Your task to perform on an android device: Search for sushi restaurants on Maps Image 0: 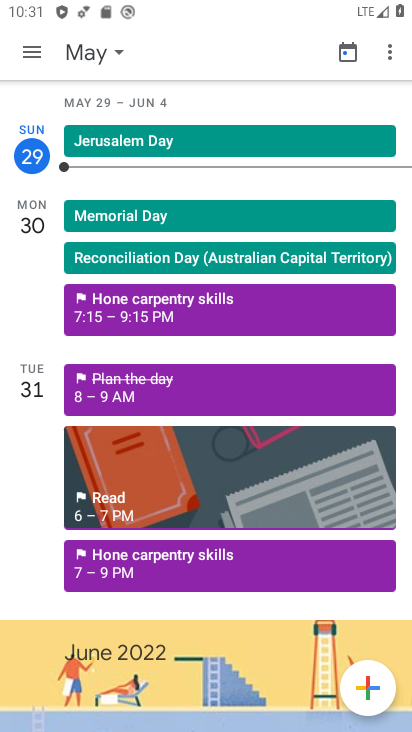
Step 0: press home button
Your task to perform on an android device: Search for sushi restaurants on Maps Image 1: 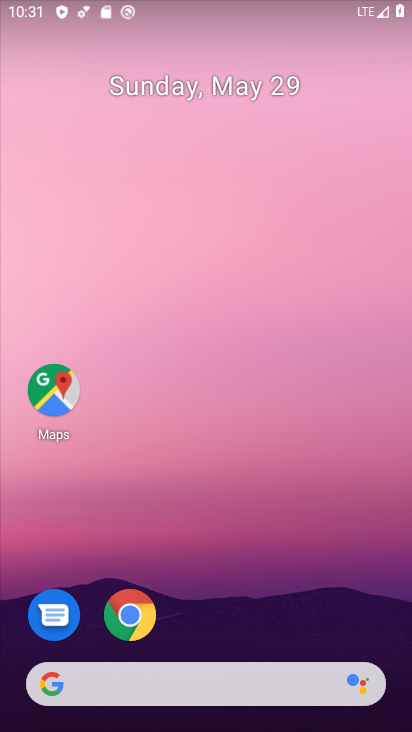
Step 1: drag from (329, 625) to (346, 219)
Your task to perform on an android device: Search for sushi restaurants on Maps Image 2: 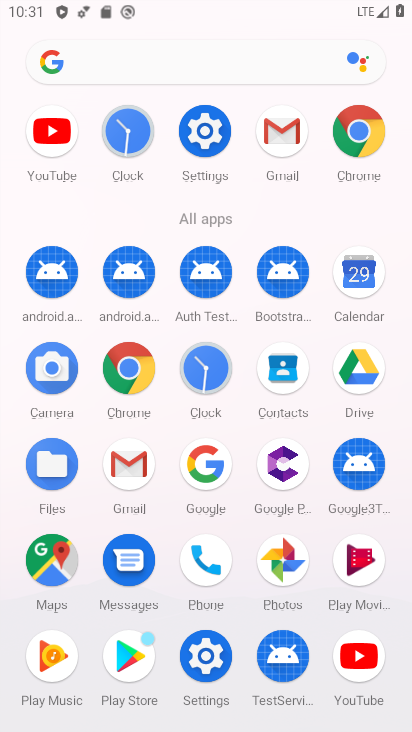
Step 2: click (45, 578)
Your task to perform on an android device: Search for sushi restaurants on Maps Image 3: 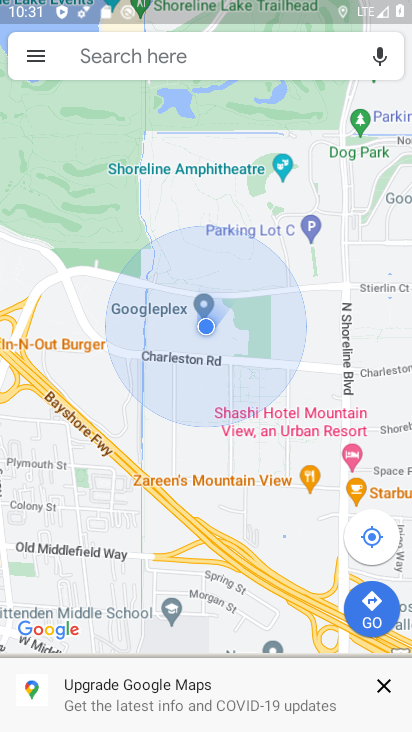
Step 3: click (179, 61)
Your task to perform on an android device: Search for sushi restaurants on Maps Image 4: 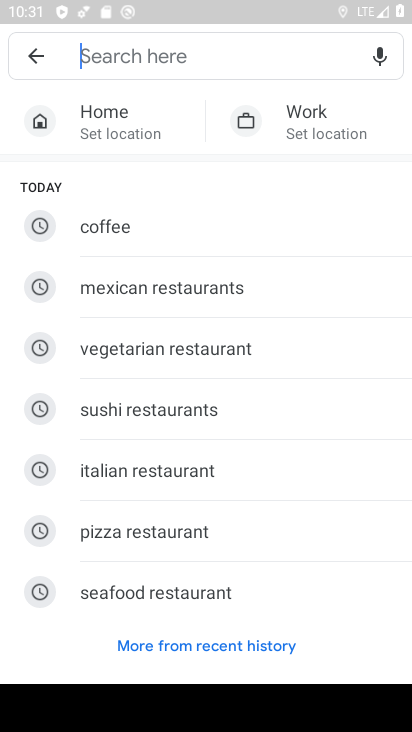
Step 4: click (277, 422)
Your task to perform on an android device: Search for sushi restaurants on Maps Image 5: 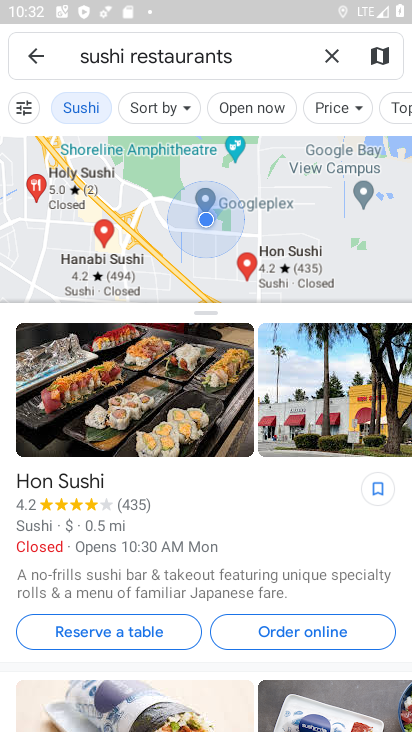
Step 5: task complete